Your task to perform on an android device: delete browsing data in the chrome app Image 0: 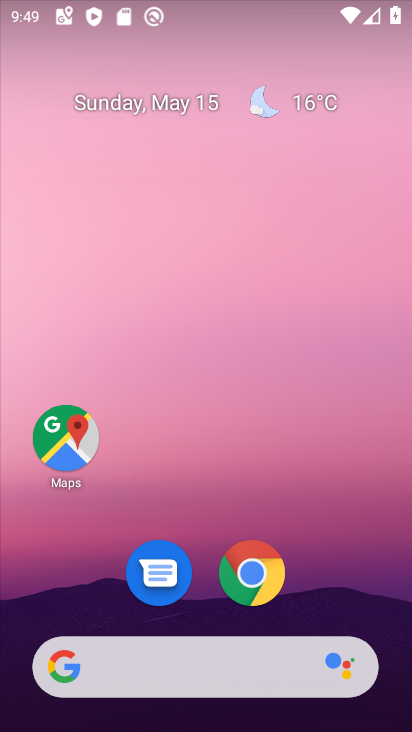
Step 0: press home button
Your task to perform on an android device: delete browsing data in the chrome app Image 1: 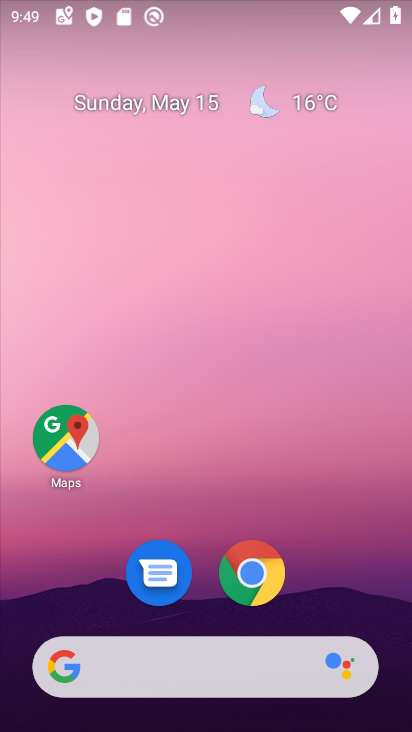
Step 1: click (235, 581)
Your task to perform on an android device: delete browsing data in the chrome app Image 2: 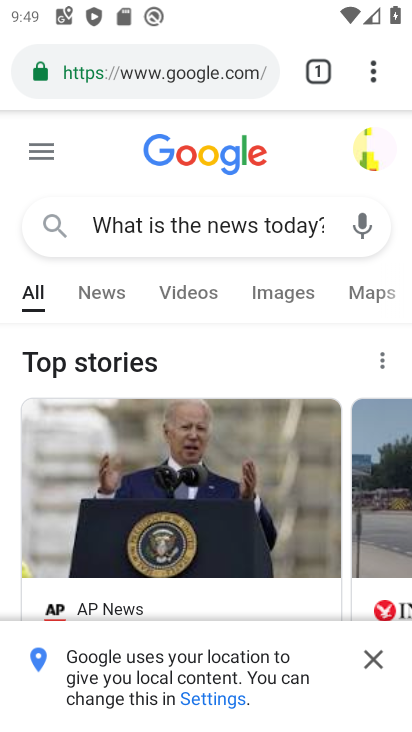
Step 2: drag from (375, 73) to (169, 562)
Your task to perform on an android device: delete browsing data in the chrome app Image 3: 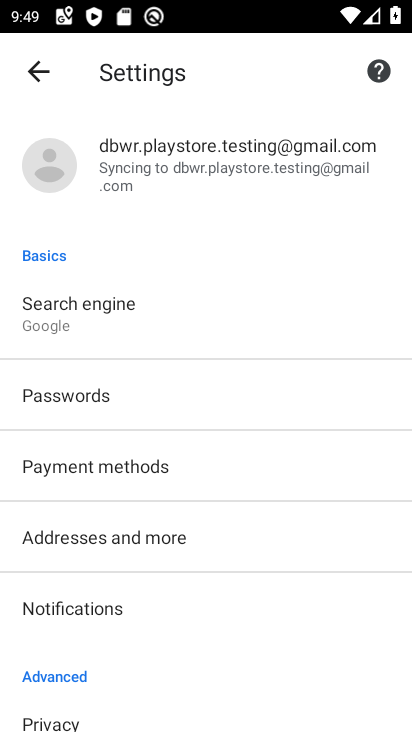
Step 3: click (87, 696)
Your task to perform on an android device: delete browsing data in the chrome app Image 4: 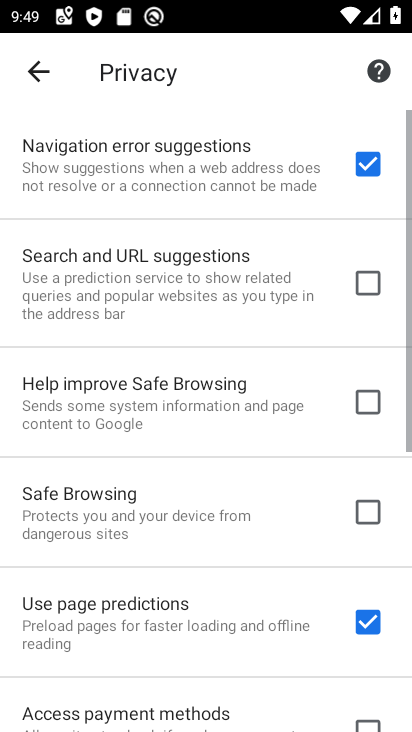
Step 4: drag from (87, 696) to (89, 303)
Your task to perform on an android device: delete browsing data in the chrome app Image 5: 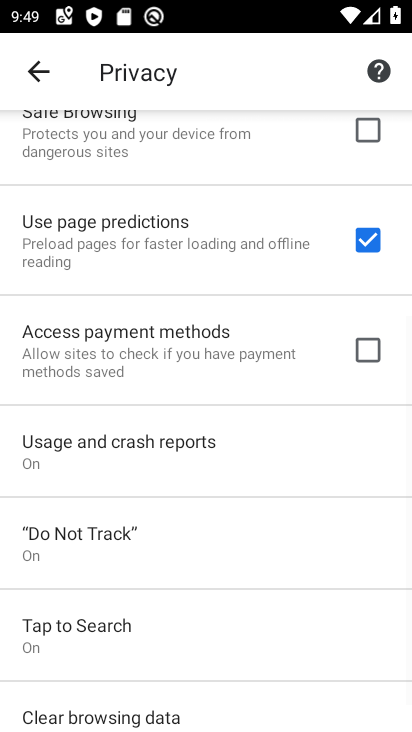
Step 5: drag from (231, 584) to (231, 297)
Your task to perform on an android device: delete browsing data in the chrome app Image 6: 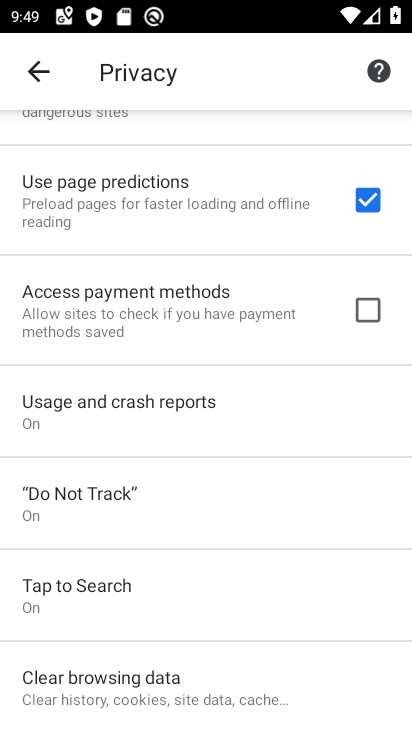
Step 6: click (158, 696)
Your task to perform on an android device: delete browsing data in the chrome app Image 7: 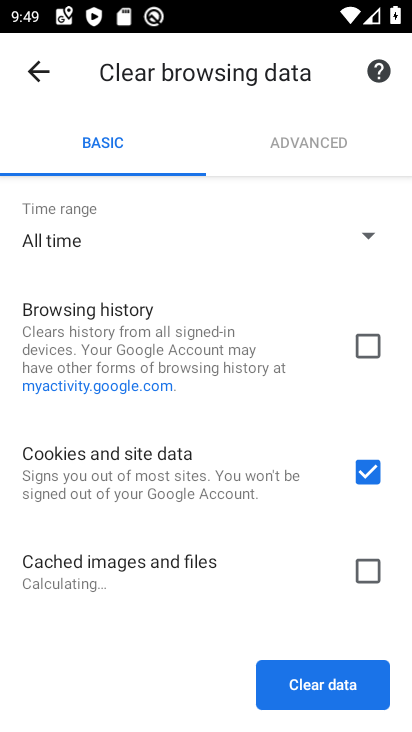
Step 7: click (362, 684)
Your task to perform on an android device: delete browsing data in the chrome app Image 8: 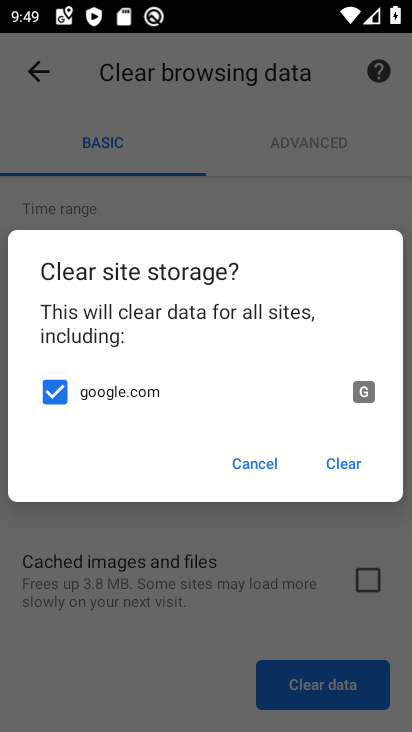
Step 8: click (338, 466)
Your task to perform on an android device: delete browsing data in the chrome app Image 9: 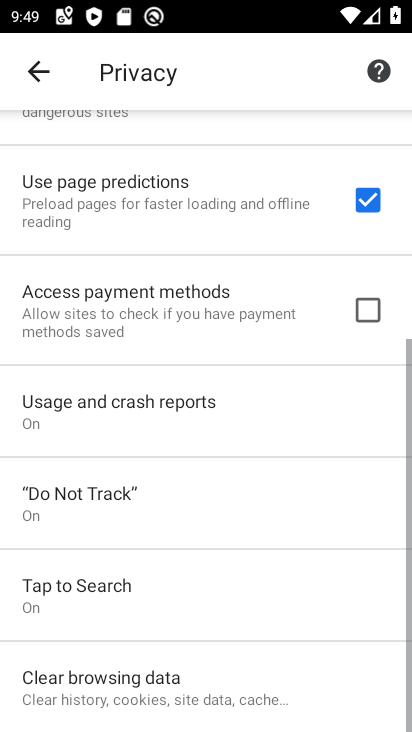
Step 9: task complete